Your task to perform on an android device: allow cookies in the chrome app Image 0: 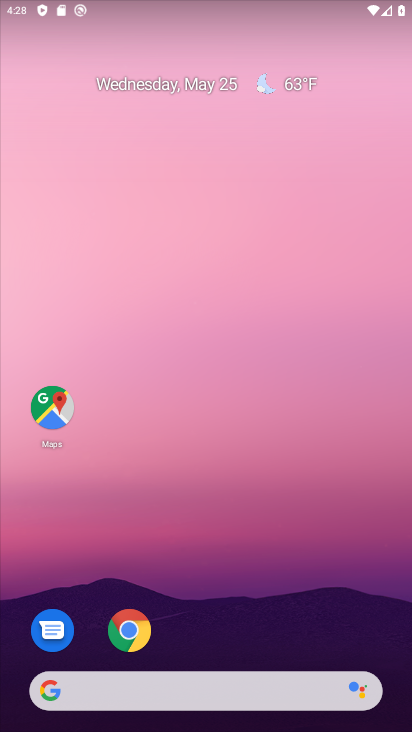
Step 0: click (137, 625)
Your task to perform on an android device: allow cookies in the chrome app Image 1: 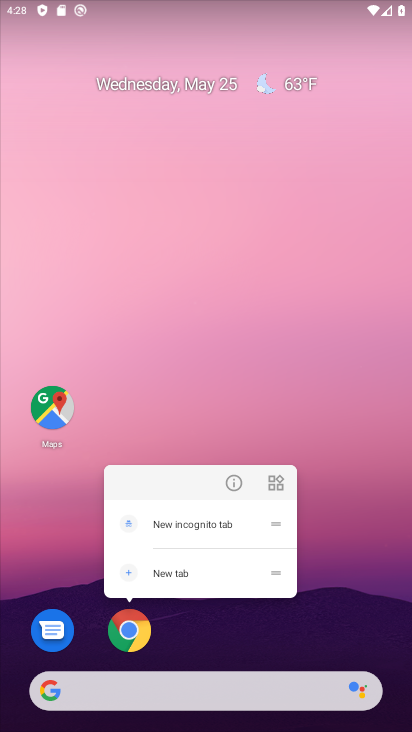
Step 1: click (131, 624)
Your task to perform on an android device: allow cookies in the chrome app Image 2: 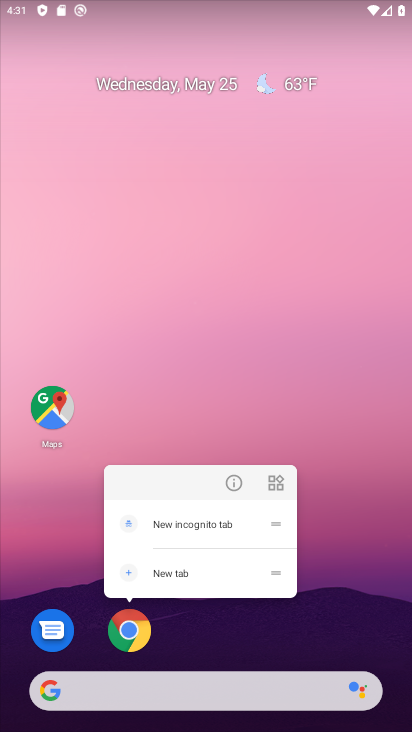
Step 2: click (130, 624)
Your task to perform on an android device: allow cookies in the chrome app Image 3: 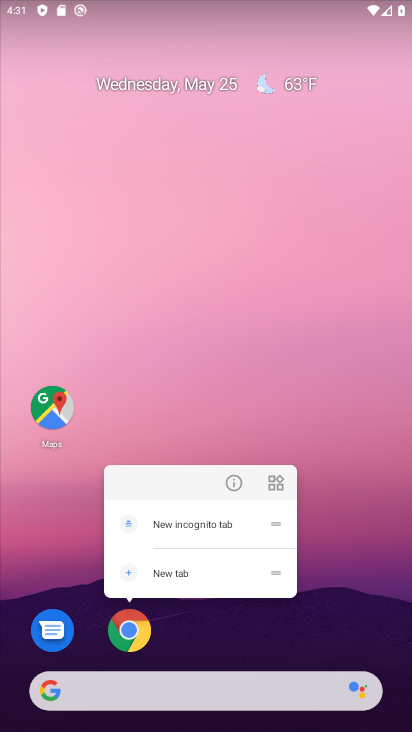
Step 3: click (124, 623)
Your task to perform on an android device: allow cookies in the chrome app Image 4: 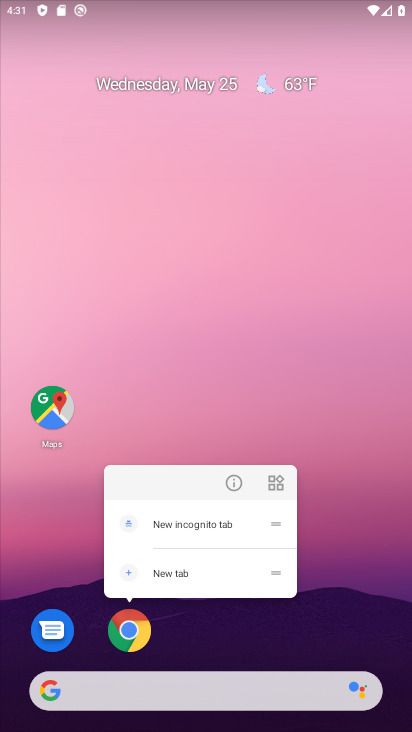
Step 4: click (132, 633)
Your task to perform on an android device: allow cookies in the chrome app Image 5: 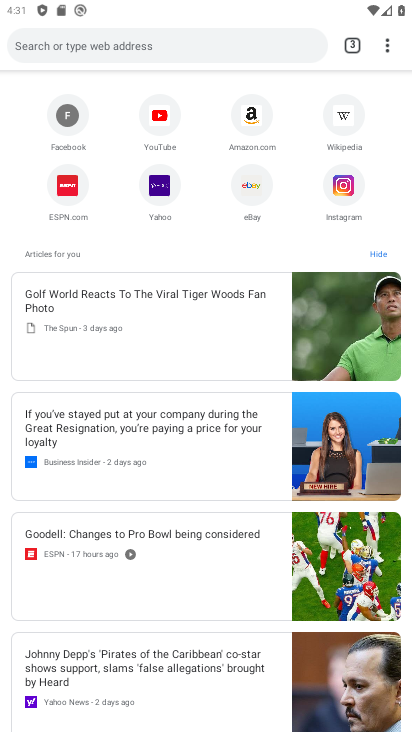
Step 5: drag from (393, 45) to (235, 381)
Your task to perform on an android device: allow cookies in the chrome app Image 6: 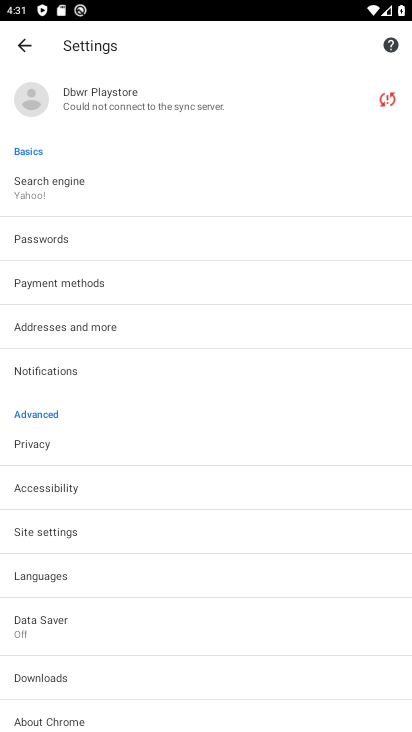
Step 6: click (56, 533)
Your task to perform on an android device: allow cookies in the chrome app Image 7: 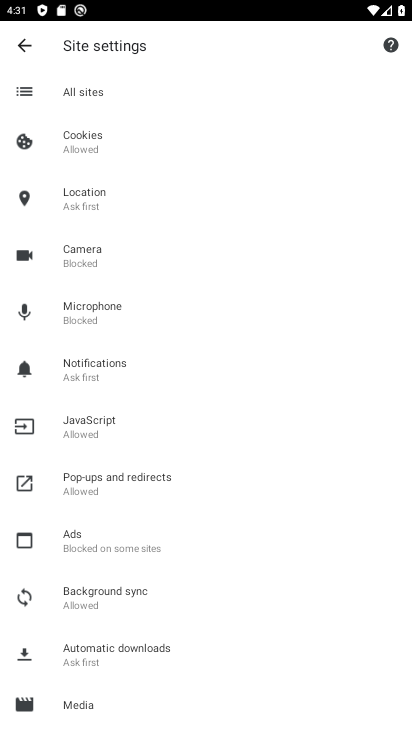
Step 7: click (83, 135)
Your task to perform on an android device: allow cookies in the chrome app Image 8: 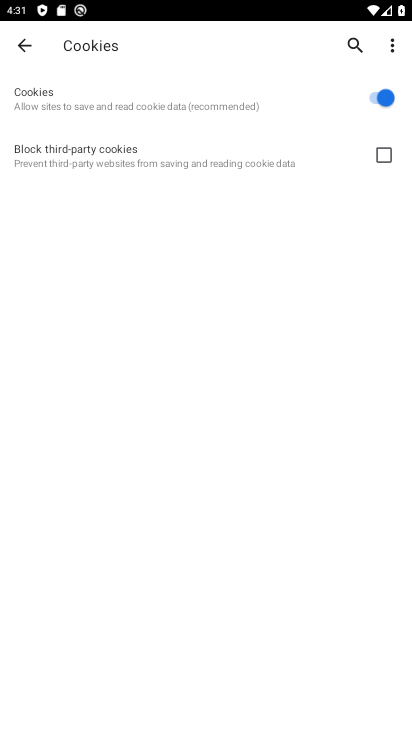
Step 8: task complete